Your task to perform on an android device: turn off notifications settings in the gmail app Image 0: 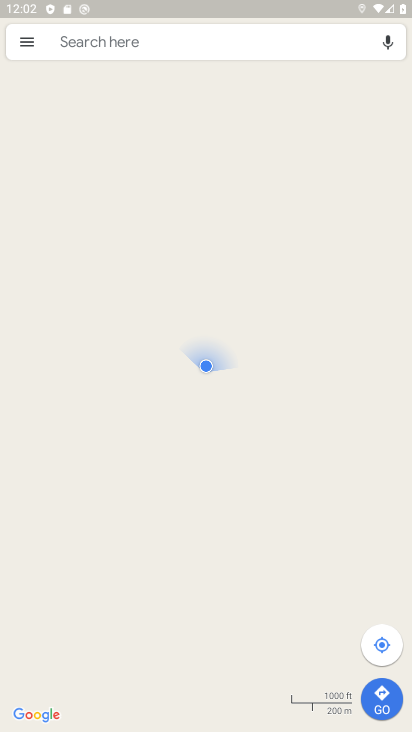
Step 0: press home button
Your task to perform on an android device: turn off notifications settings in the gmail app Image 1: 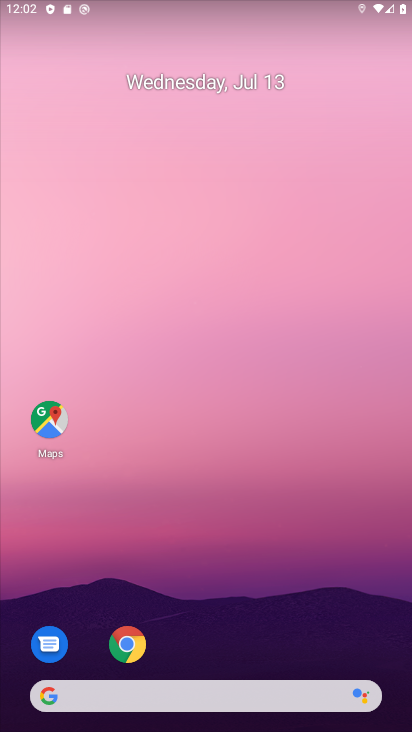
Step 1: drag from (265, 616) to (261, 30)
Your task to perform on an android device: turn off notifications settings in the gmail app Image 2: 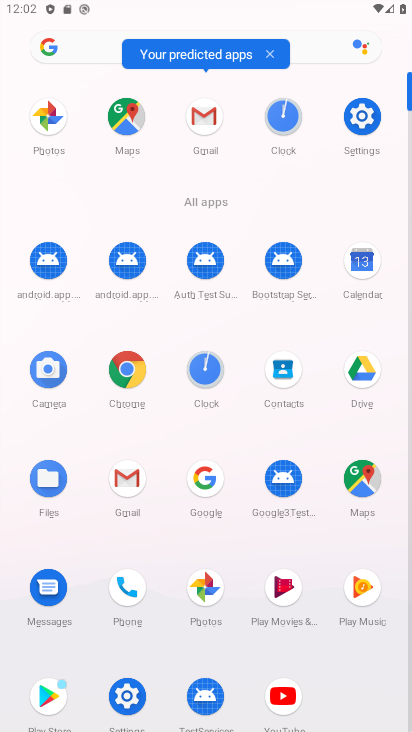
Step 2: click (202, 117)
Your task to perform on an android device: turn off notifications settings in the gmail app Image 3: 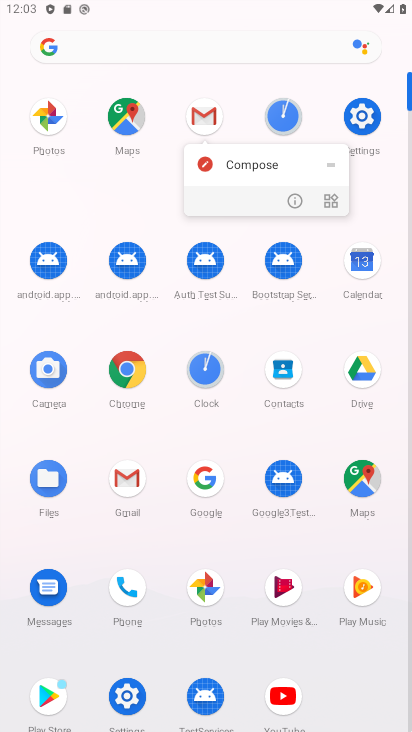
Step 3: click (205, 113)
Your task to perform on an android device: turn off notifications settings in the gmail app Image 4: 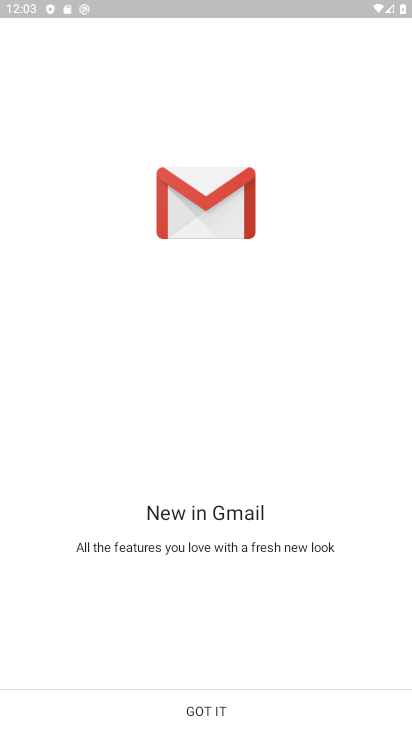
Step 4: click (232, 702)
Your task to perform on an android device: turn off notifications settings in the gmail app Image 5: 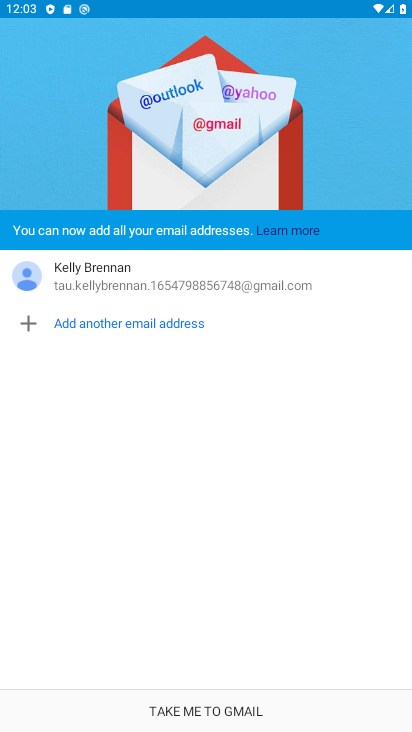
Step 5: click (202, 707)
Your task to perform on an android device: turn off notifications settings in the gmail app Image 6: 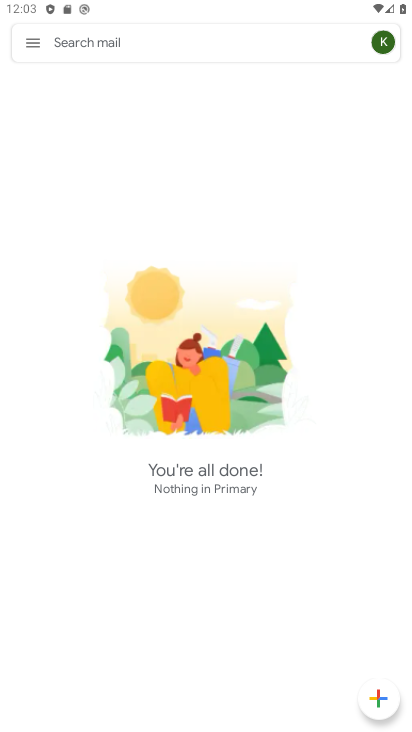
Step 6: click (30, 44)
Your task to perform on an android device: turn off notifications settings in the gmail app Image 7: 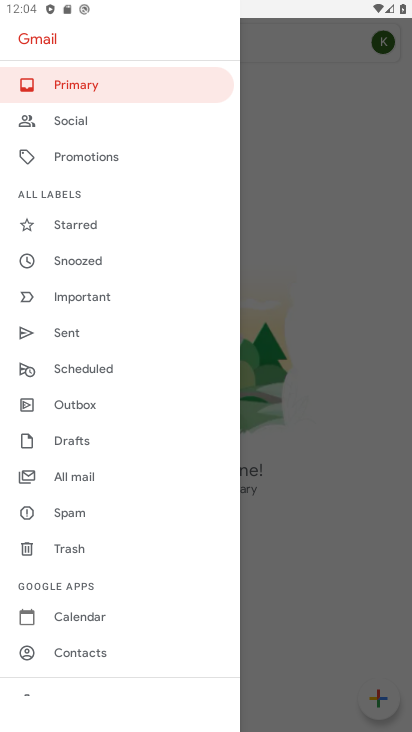
Step 7: drag from (96, 602) to (107, 145)
Your task to perform on an android device: turn off notifications settings in the gmail app Image 8: 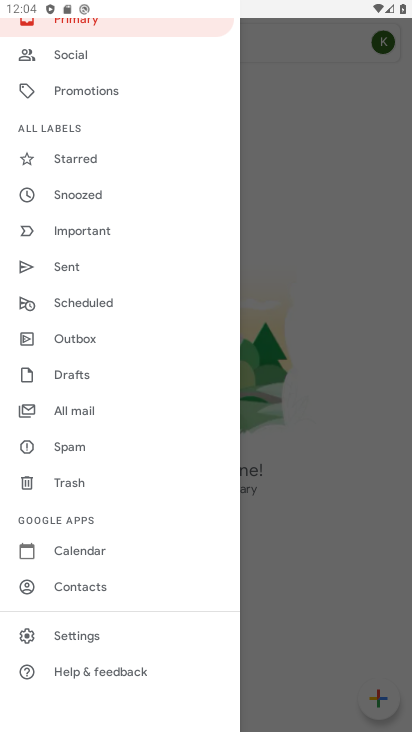
Step 8: click (71, 632)
Your task to perform on an android device: turn off notifications settings in the gmail app Image 9: 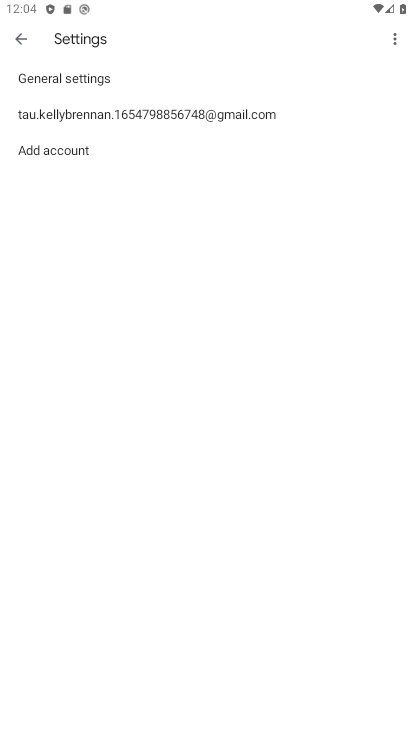
Step 9: click (164, 118)
Your task to perform on an android device: turn off notifications settings in the gmail app Image 10: 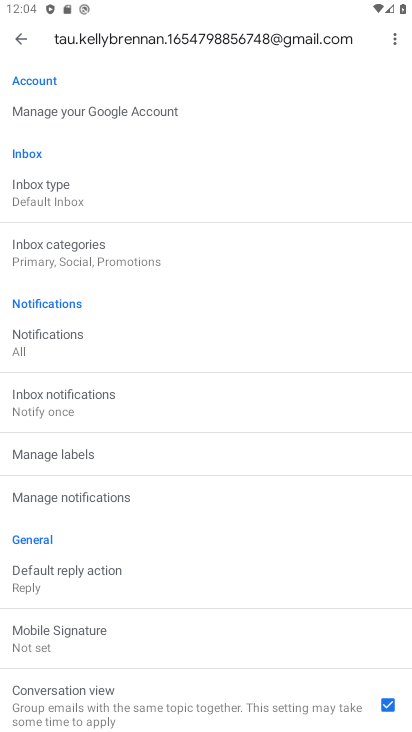
Step 10: click (52, 501)
Your task to perform on an android device: turn off notifications settings in the gmail app Image 11: 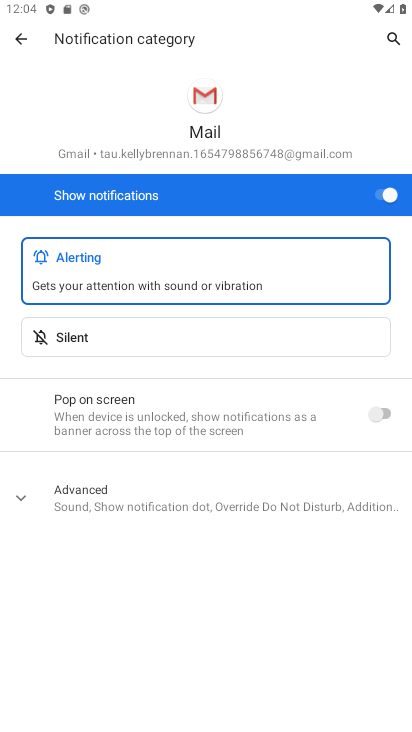
Step 11: click (377, 199)
Your task to perform on an android device: turn off notifications settings in the gmail app Image 12: 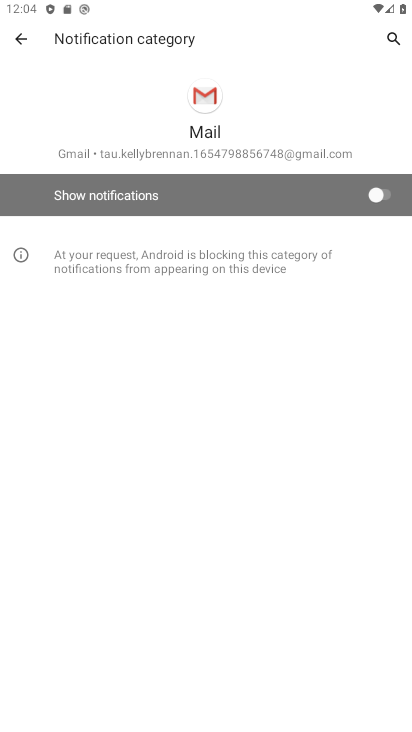
Step 12: task complete